Your task to perform on an android device: Show me recent news Image 0: 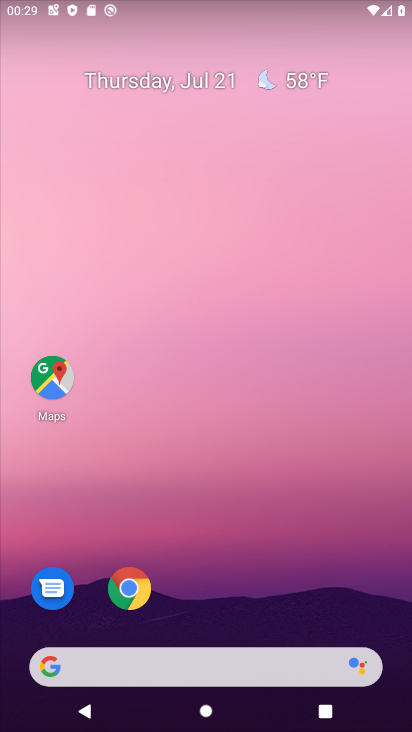
Step 0: drag from (202, 609) to (121, 5)
Your task to perform on an android device: Show me recent news Image 1: 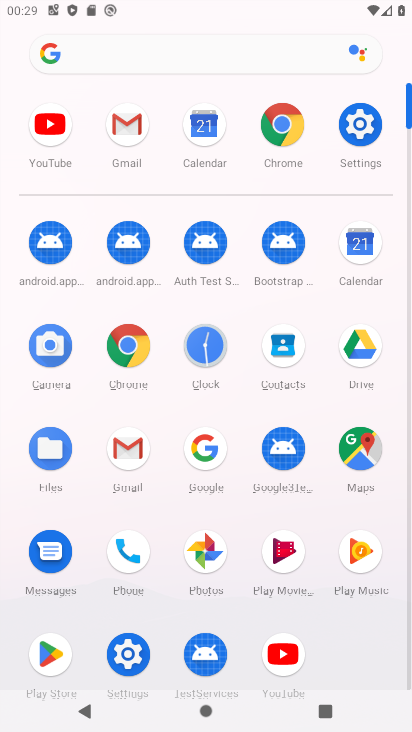
Step 1: click (189, 57)
Your task to perform on an android device: Show me recent news Image 2: 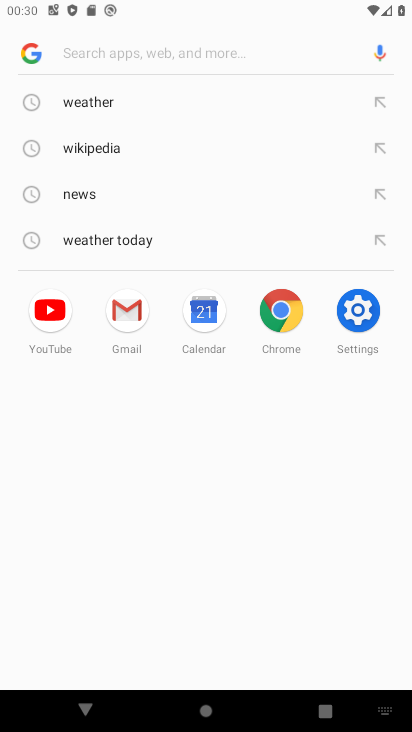
Step 2: type "recent news"
Your task to perform on an android device: Show me recent news Image 3: 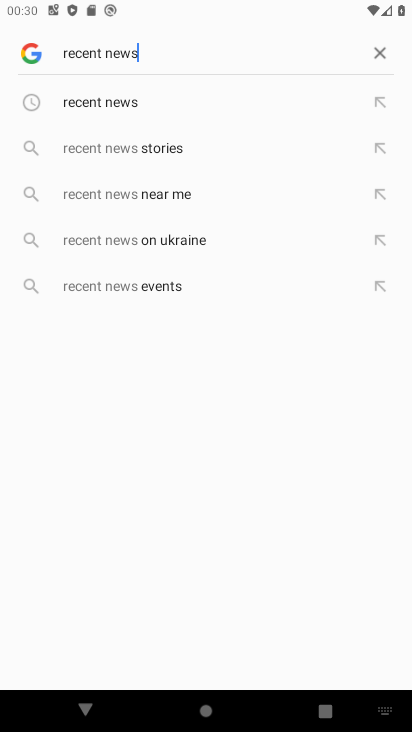
Step 3: click (140, 103)
Your task to perform on an android device: Show me recent news Image 4: 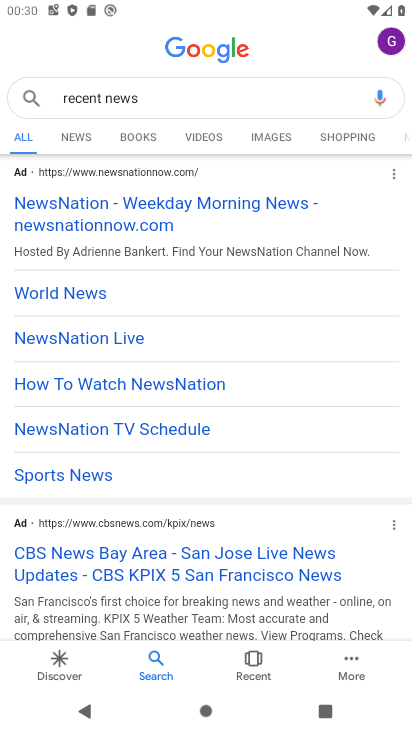
Step 4: task complete